Your task to perform on an android device: check storage Image 0: 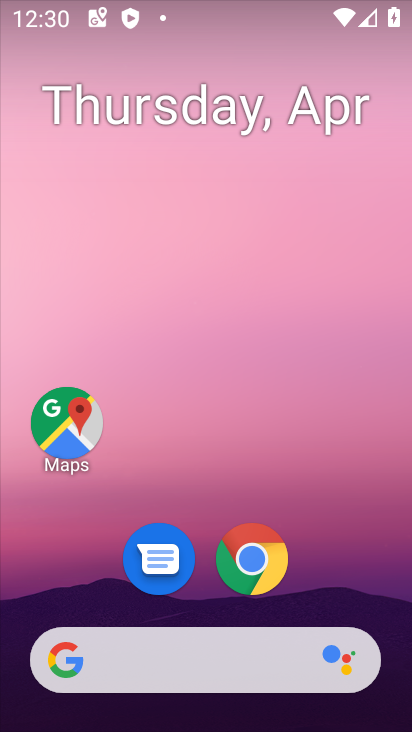
Step 0: drag from (177, 689) to (268, 363)
Your task to perform on an android device: check storage Image 1: 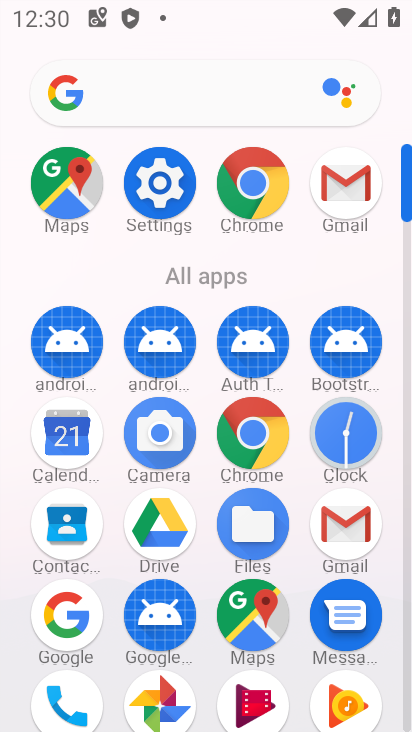
Step 1: click (159, 201)
Your task to perform on an android device: check storage Image 2: 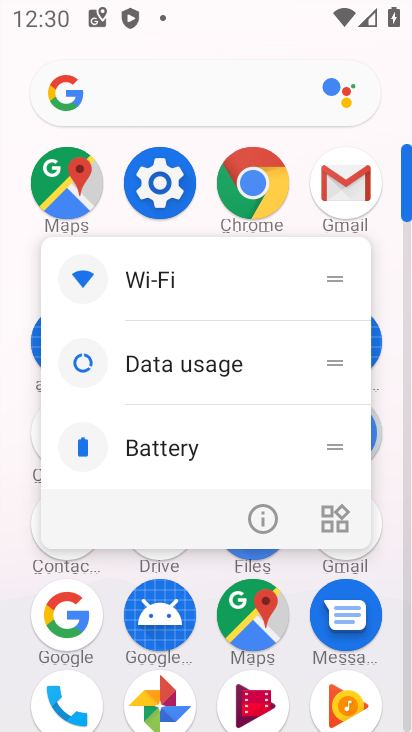
Step 2: click (154, 204)
Your task to perform on an android device: check storage Image 3: 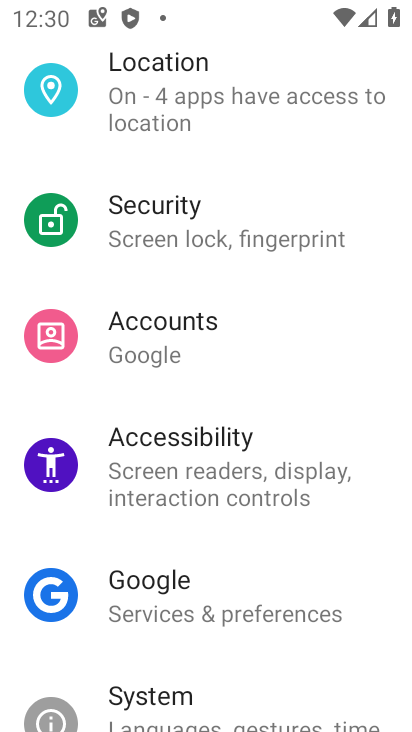
Step 3: drag from (221, 683) to (301, 289)
Your task to perform on an android device: check storage Image 4: 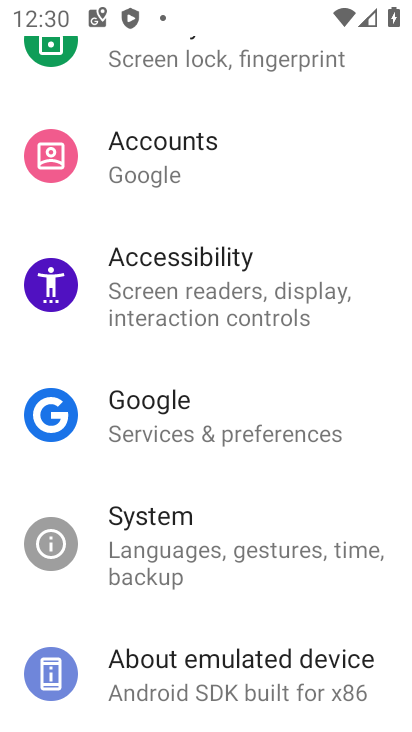
Step 4: drag from (221, 164) to (195, 558)
Your task to perform on an android device: check storage Image 5: 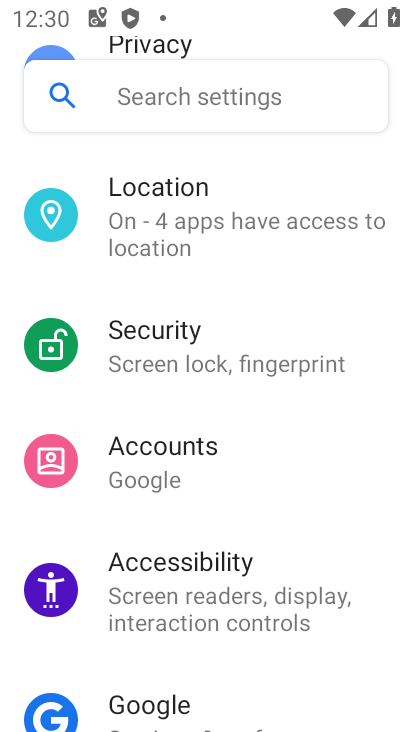
Step 5: drag from (237, 195) to (194, 578)
Your task to perform on an android device: check storage Image 6: 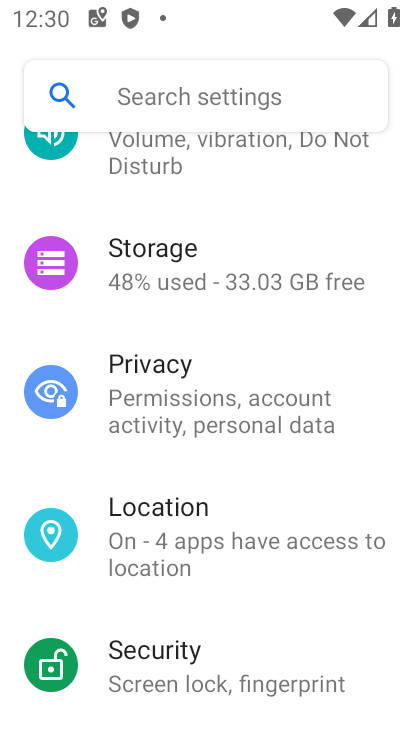
Step 6: click (210, 268)
Your task to perform on an android device: check storage Image 7: 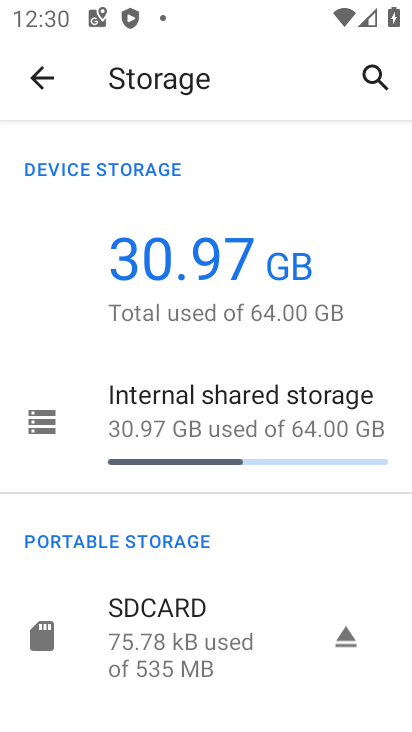
Step 7: task complete